Your task to perform on an android device: turn pop-ups on in chrome Image 0: 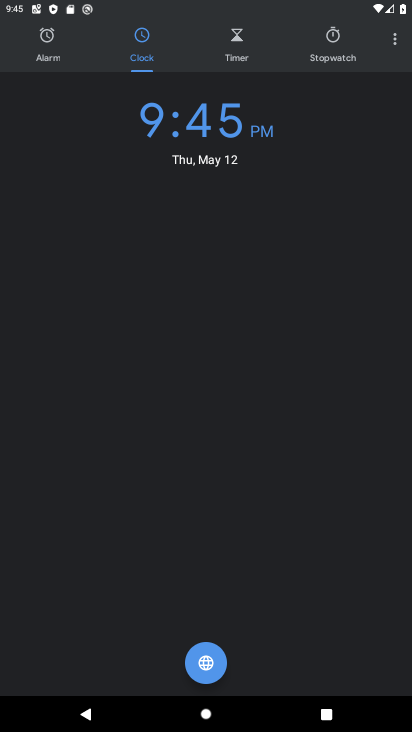
Step 0: press home button
Your task to perform on an android device: turn pop-ups on in chrome Image 1: 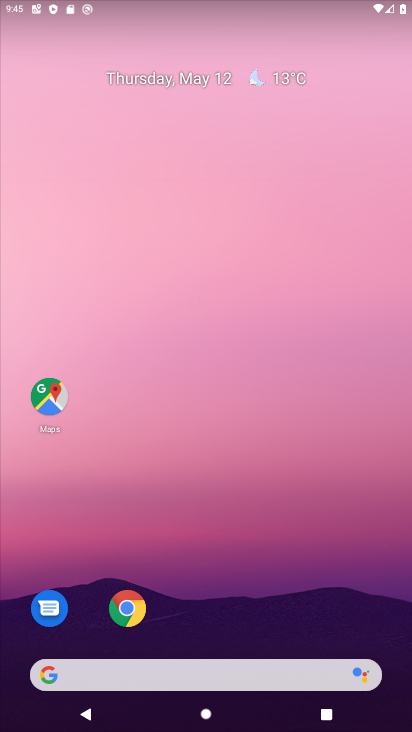
Step 1: click (129, 613)
Your task to perform on an android device: turn pop-ups on in chrome Image 2: 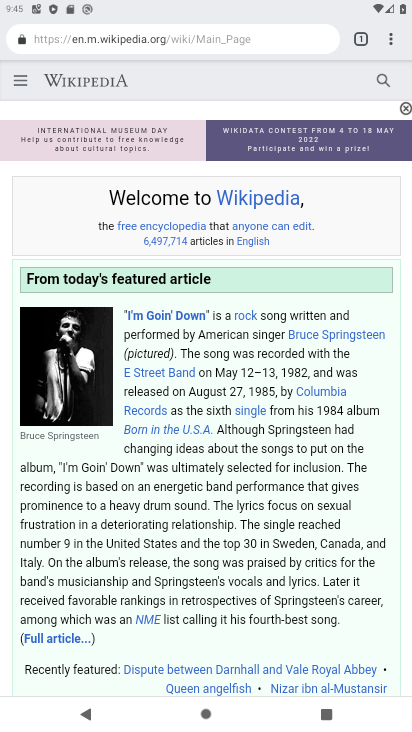
Step 2: click (386, 43)
Your task to perform on an android device: turn pop-ups on in chrome Image 3: 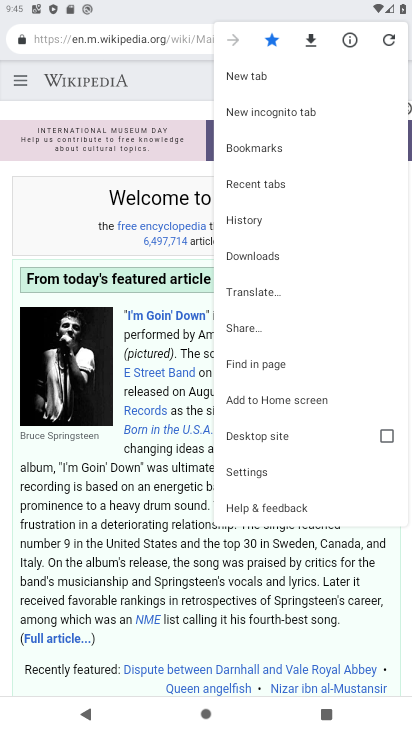
Step 3: click (254, 466)
Your task to perform on an android device: turn pop-ups on in chrome Image 4: 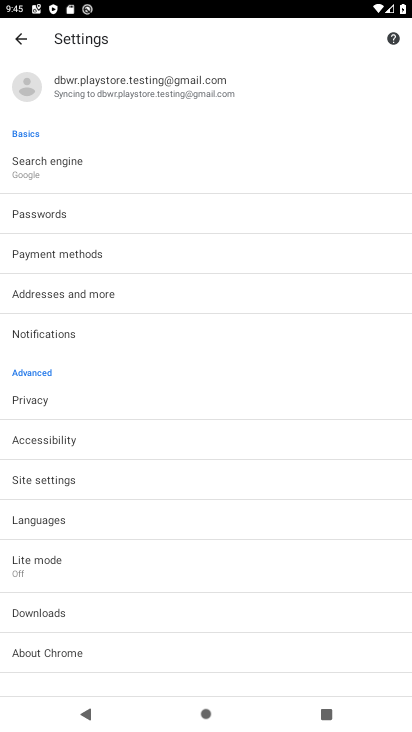
Step 4: click (111, 483)
Your task to perform on an android device: turn pop-ups on in chrome Image 5: 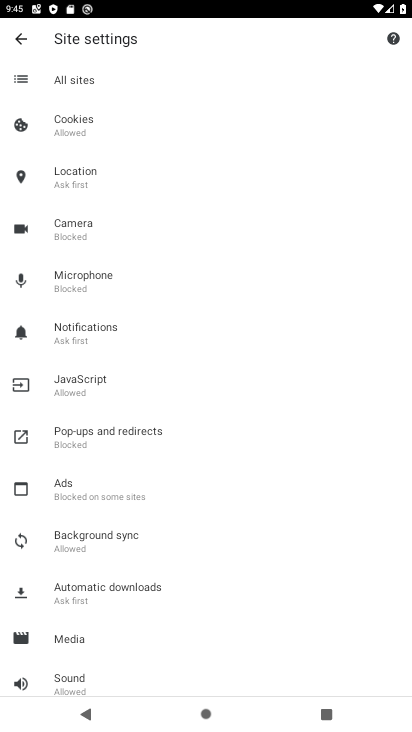
Step 5: click (139, 444)
Your task to perform on an android device: turn pop-ups on in chrome Image 6: 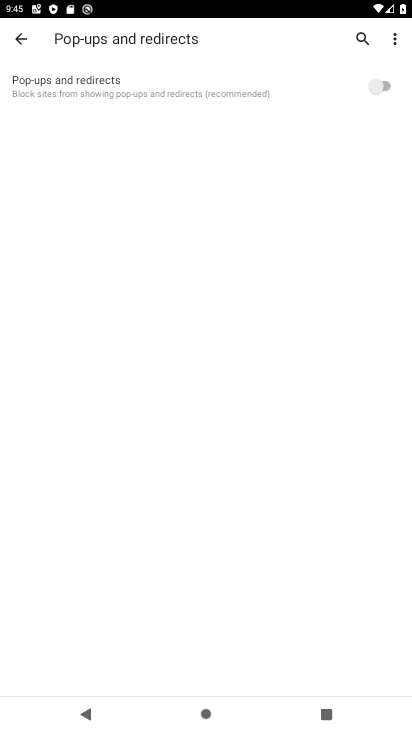
Step 6: click (378, 94)
Your task to perform on an android device: turn pop-ups on in chrome Image 7: 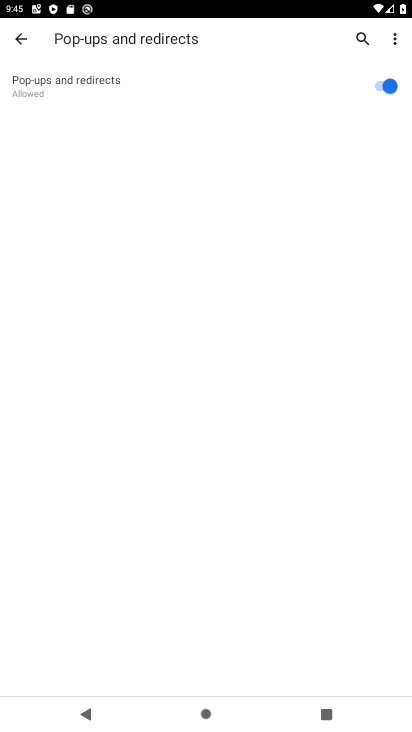
Step 7: task complete